Your task to perform on an android device: Show me popular games on the Play Store Image 0: 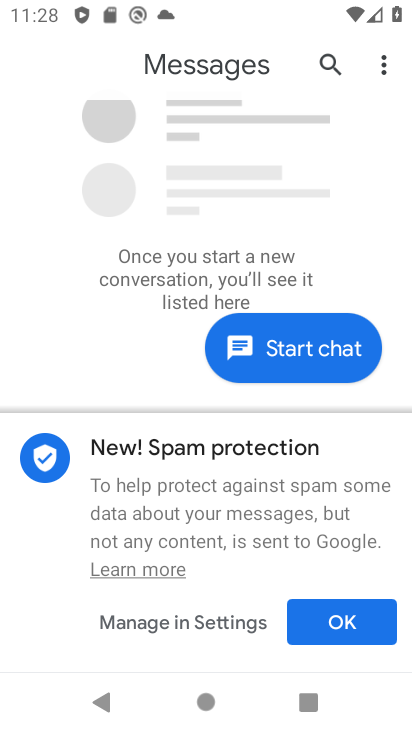
Step 0: press home button
Your task to perform on an android device: Show me popular games on the Play Store Image 1: 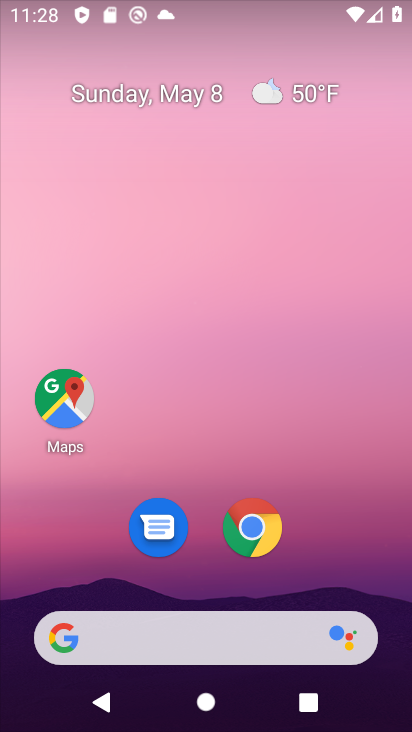
Step 1: drag from (190, 721) to (186, 272)
Your task to perform on an android device: Show me popular games on the Play Store Image 2: 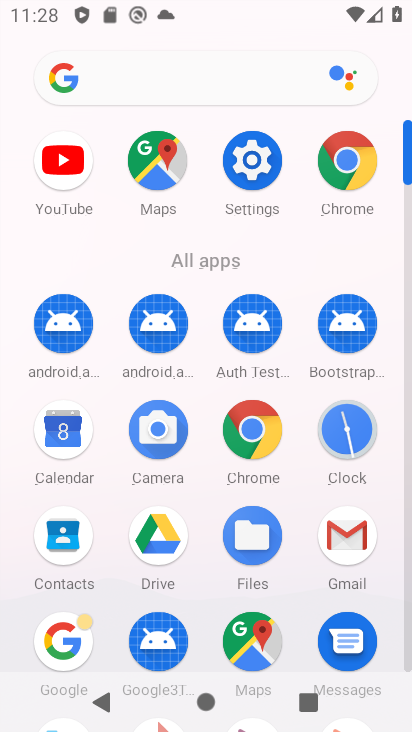
Step 2: drag from (201, 640) to (201, 270)
Your task to perform on an android device: Show me popular games on the Play Store Image 3: 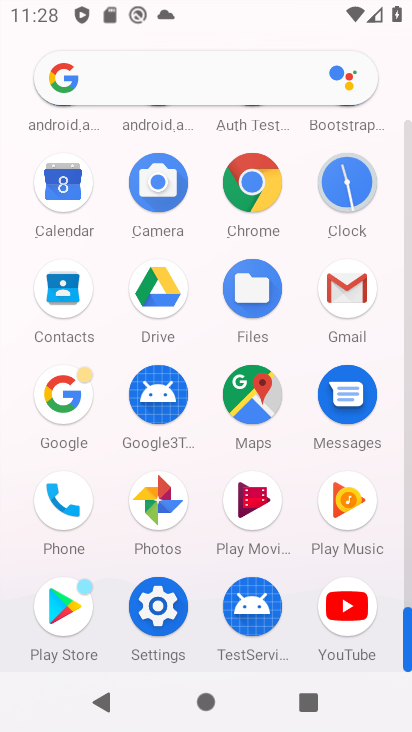
Step 3: click (67, 604)
Your task to perform on an android device: Show me popular games on the Play Store Image 4: 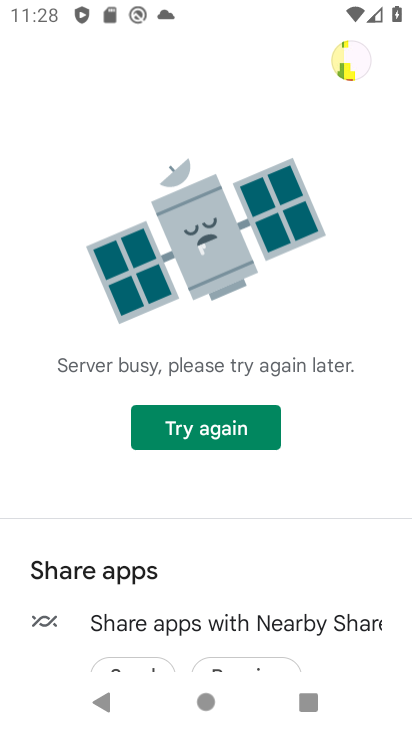
Step 4: click (206, 423)
Your task to perform on an android device: Show me popular games on the Play Store Image 5: 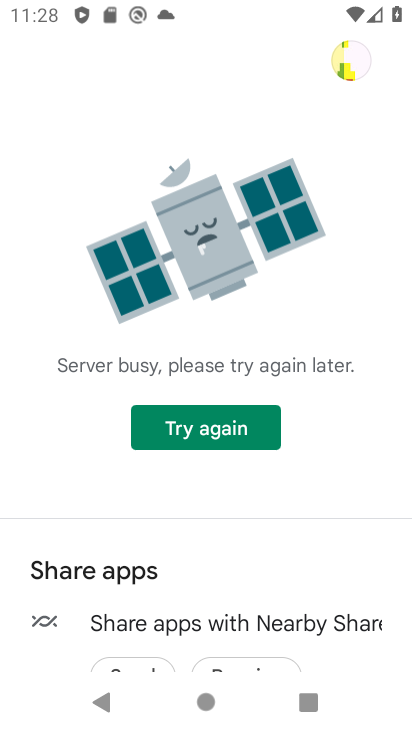
Step 5: task complete